Your task to perform on an android device: turn on airplane mode Image 0: 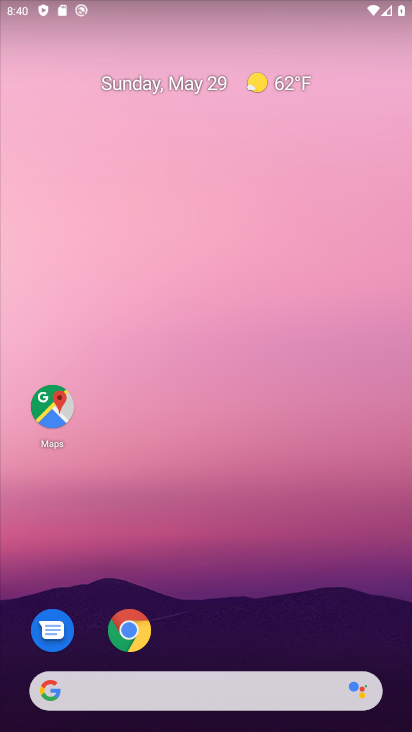
Step 0: drag from (397, 710) to (393, 148)
Your task to perform on an android device: turn on airplane mode Image 1: 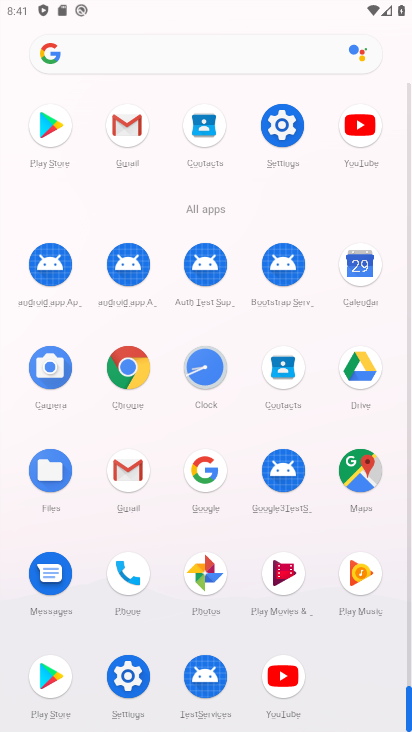
Step 1: click (270, 130)
Your task to perform on an android device: turn on airplane mode Image 2: 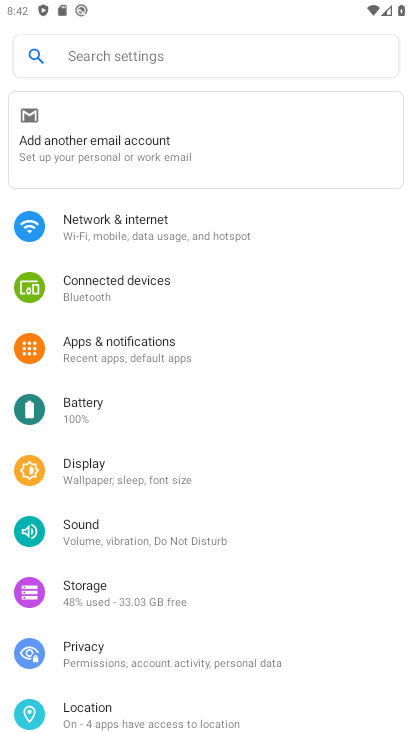
Step 2: click (118, 228)
Your task to perform on an android device: turn on airplane mode Image 3: 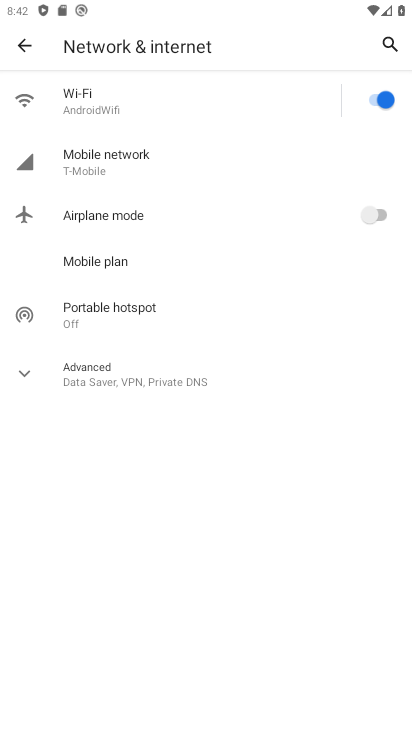
Step 3: click (370, 217)
Your task to perform on an android device: turn on airplane mode Image 4: 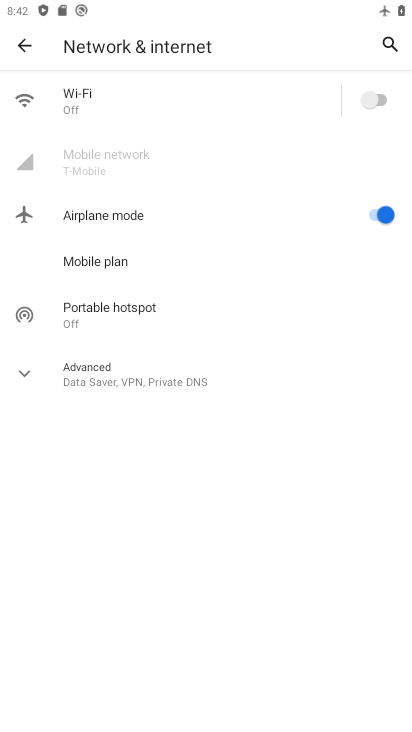
Step 4: task complete